Your task to perform on an android device: change notifications settings Image 0: 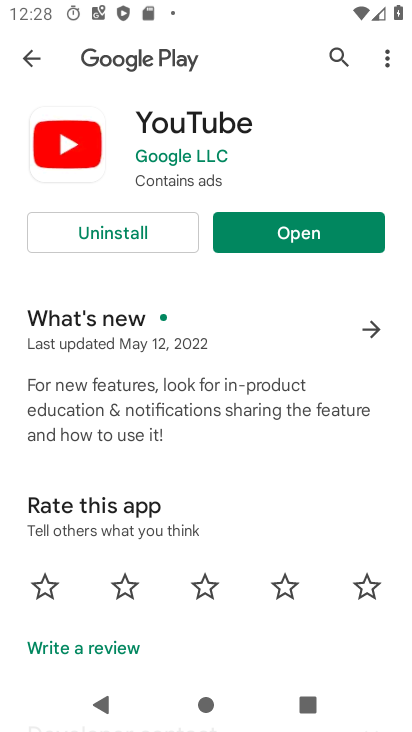
Step 0: press home button
Your task to perform on an android device: change notifications settings Image 1: 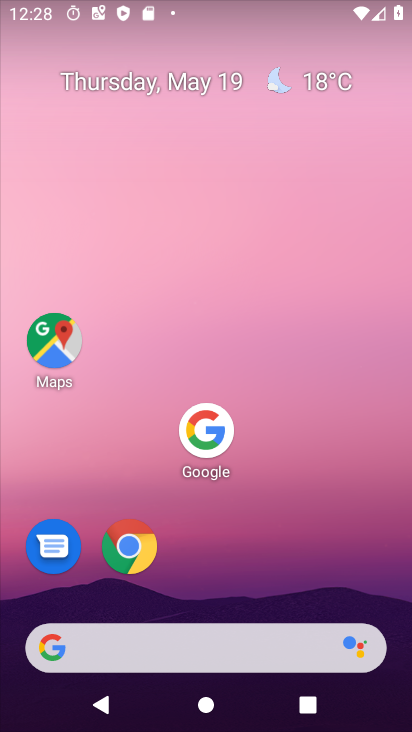
Step 1: drag from (243, 572) to (274, 72)
Your task to perform on an android device: change notifications settings Image 2: 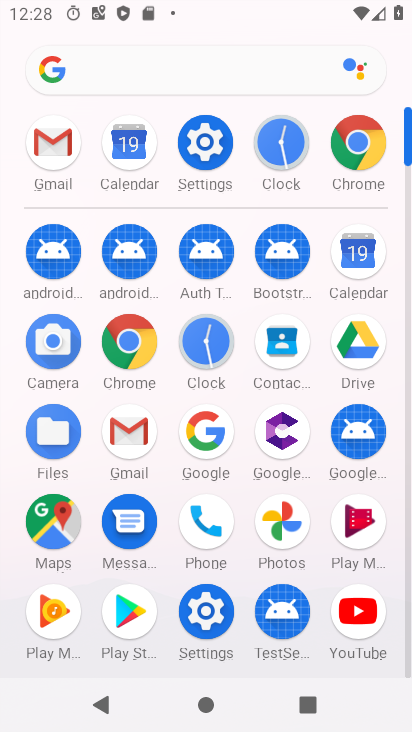
Step 2: click (205, 139)
Your task to perform on an android device: change notifications settings Image 3: 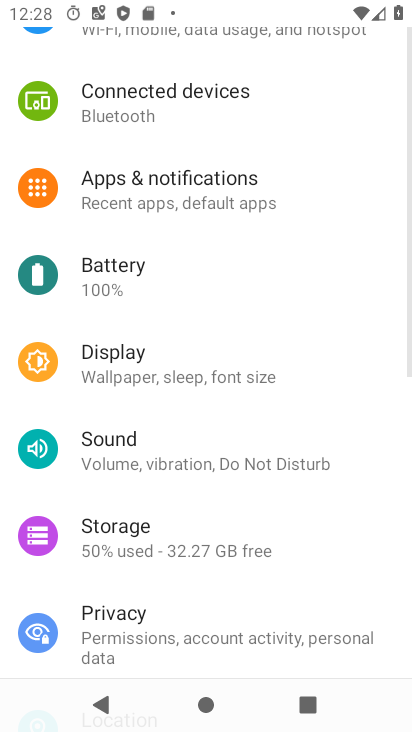
Step 3: click (183, 198)
Your task to perform on an android device: change notifications settings Image 4: 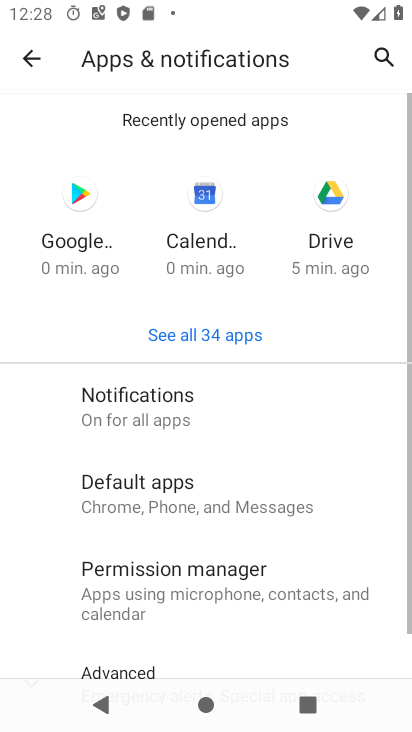
Step 4: click (169, 391)
Your task to perform on an android device: change notifications settings Image 5: 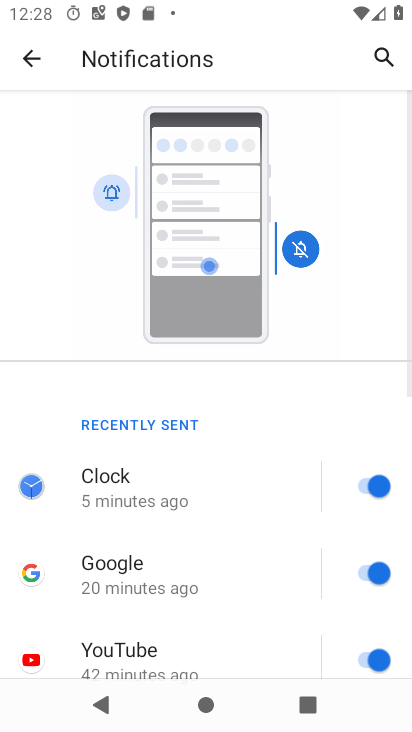
Step 5: drag from (349, 568) to (360, 139)
Your task to perform on an android device: change notifications settings Image 6: 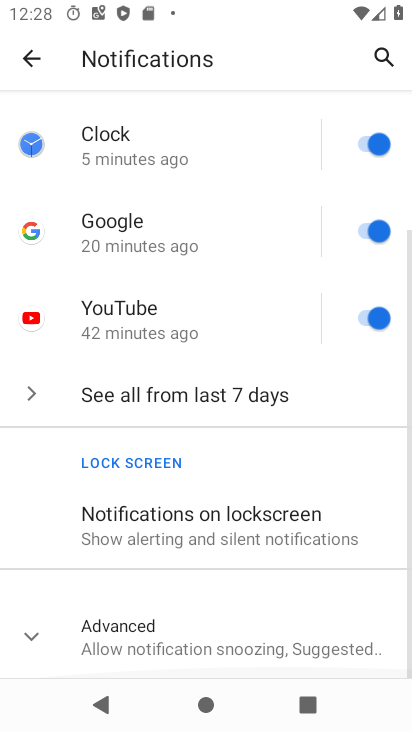
Step 6: drag from (300, 593) to (309, 376)
Your task to perform on an android device: change notifications settings Image 7: 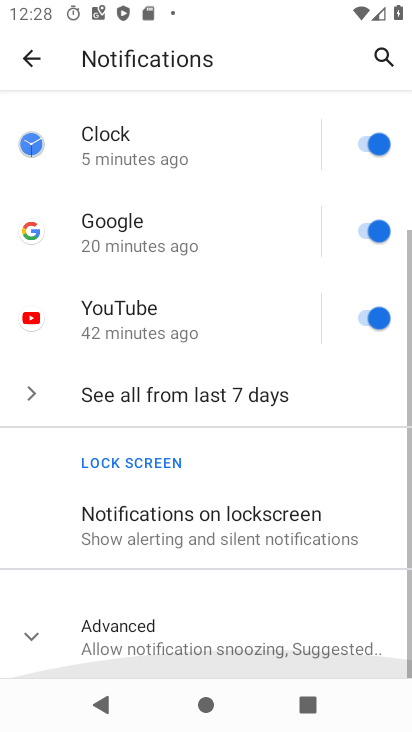
Step 7: click (175, 640)
Your task to perform on an android device: change notifications settings Image 8: 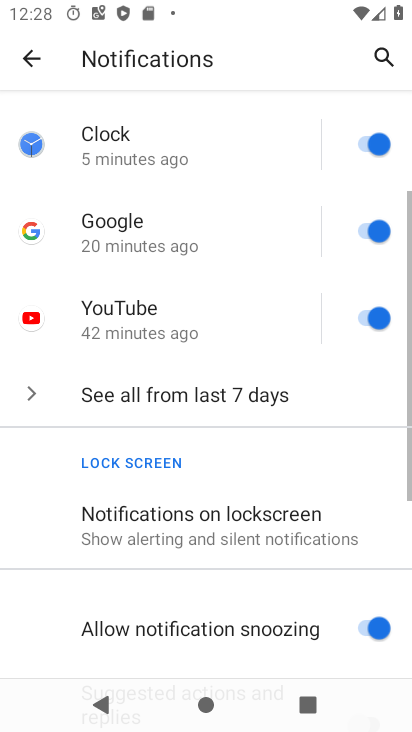
Step 8: drag from (322, 546) to (321, 172)
Your task to perform on an android device: change notifications settings Image 9: 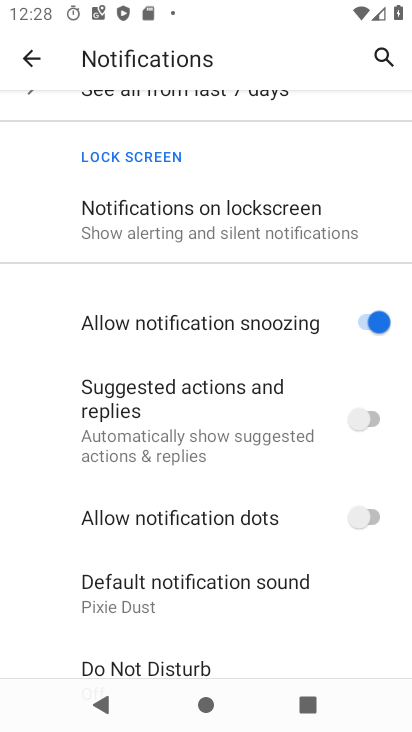
Step 9: click (370, 327)
Your task to perform on an android device: change notifications settings Image 10: 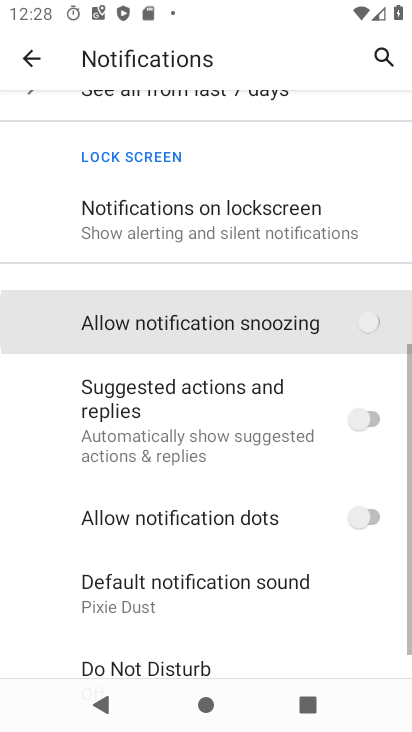
Step 10: click (360, 423)
Your task to perform on an android device: change notifications settings Image 11: 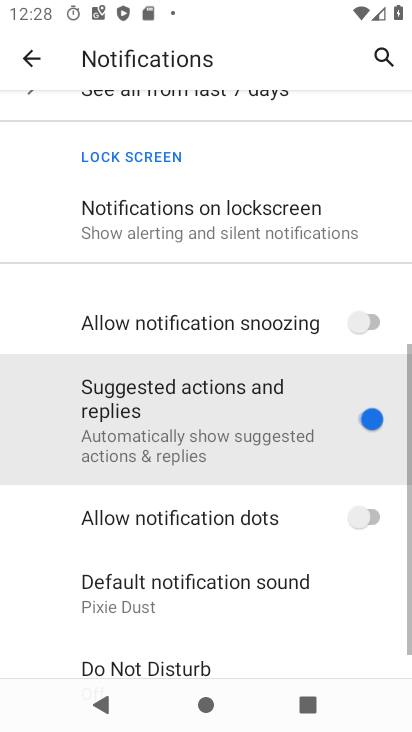
Step 11: click (360, 509)
Your task to perform on an android device: change notifications settings Image 12: 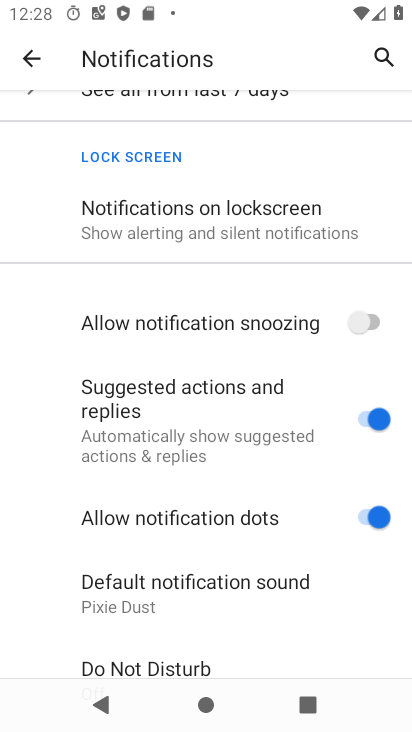
Step 12: task complete